Your task to perform on an android device: Open Google Chrome and open the bookmarks view Image 0: 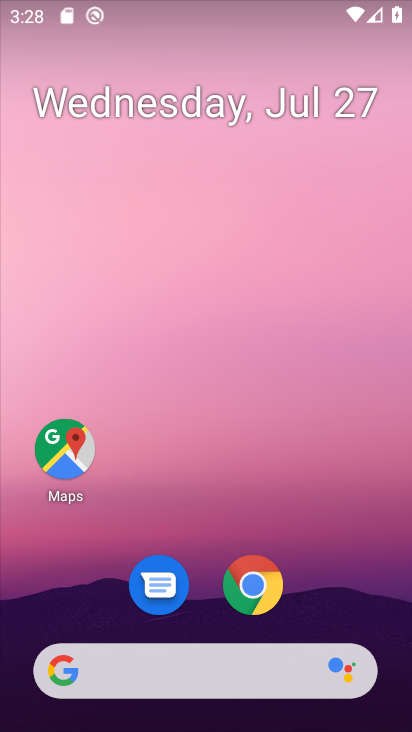
Step 0: click (266, 583)
Your task to perform on an android device: Open Google Chrome and open the bookmarks view Image 1: 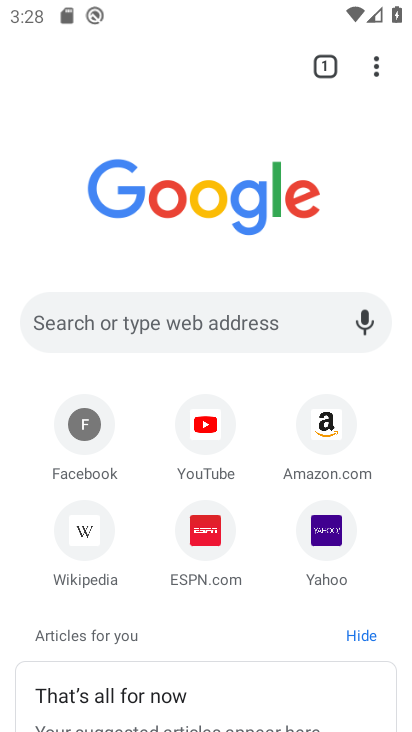
Step 1: click (375, 72)
Your task to perform on an android device: Open Google Chrome and open the bookmarks view Image 2: 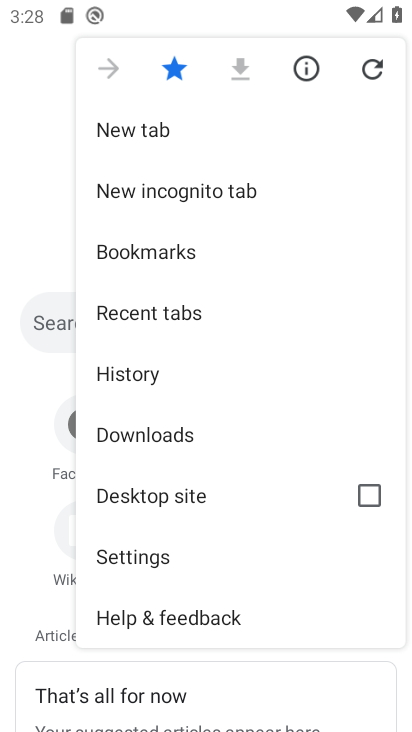
Step 2: click (185, 257)
Your task to perform on an android device: Open Google Chrome and open the bookmarks view Image 3: 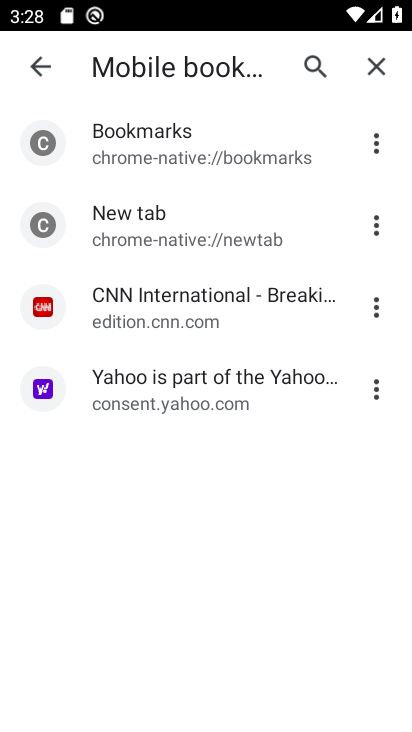
Step 3: task complete